Your task to perform on an android device: move an email to a new category in the gmail app Image 0: 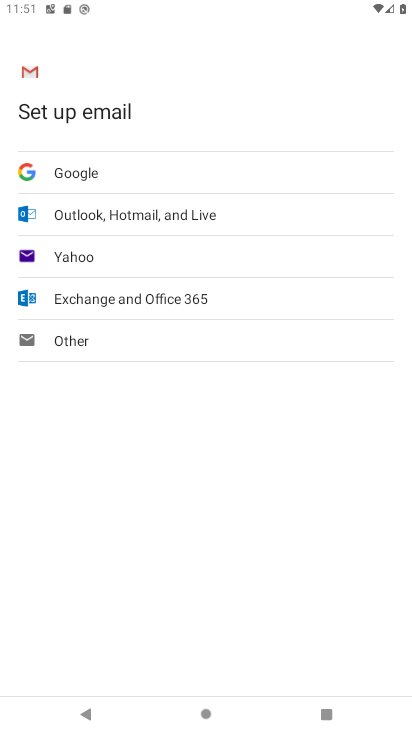
Step 0: press home button
Your task to perform on an android device: move an email to a new category in the gmail app Image 1: 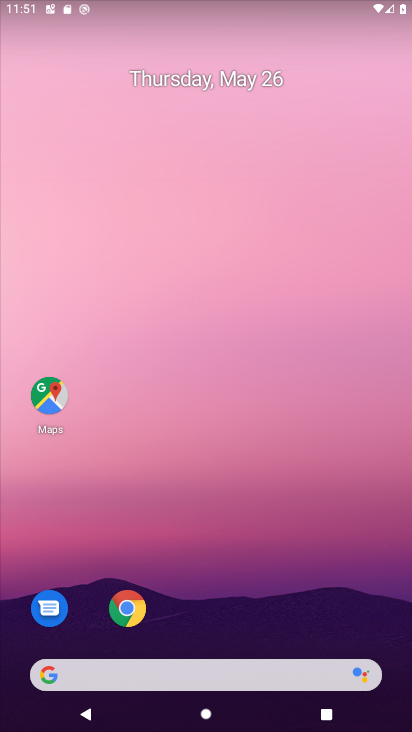
Step 1: drag from (392, 707) to (373, 147)
Your task to perform on an android device: move an email to a new category in the gmail app Image 2: 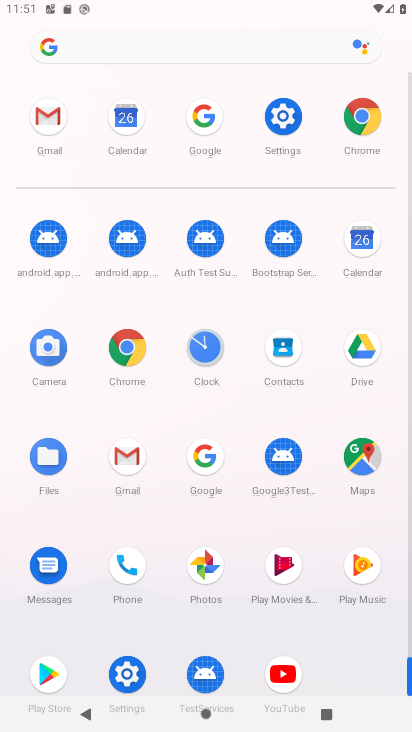
Step 2: click (132, 466)
Your task to perform on an android device: move an email to a new category in the gmail app Image 3: 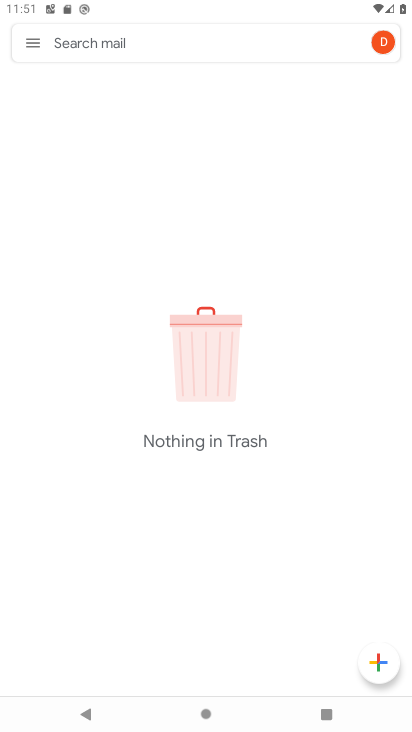
Step 3: drag from (397, 625) to (345, 319)
Your task to perform on an android device: move an email to a new category in the gmail app Image 4: 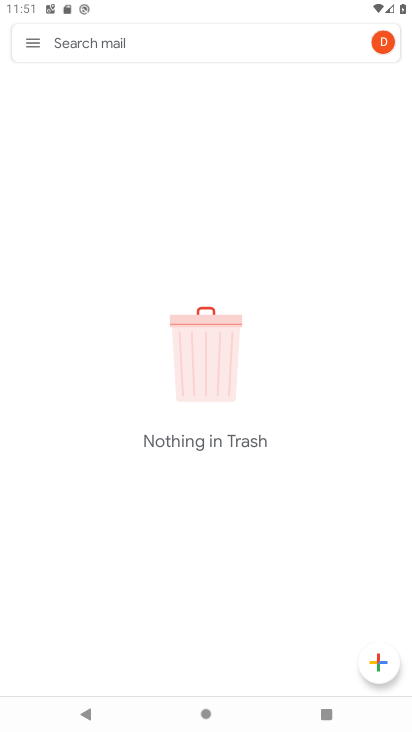
Step 4: click (24, 42)
Your task to perform on an android device: move an email to a new category in the gmail app Image 5: 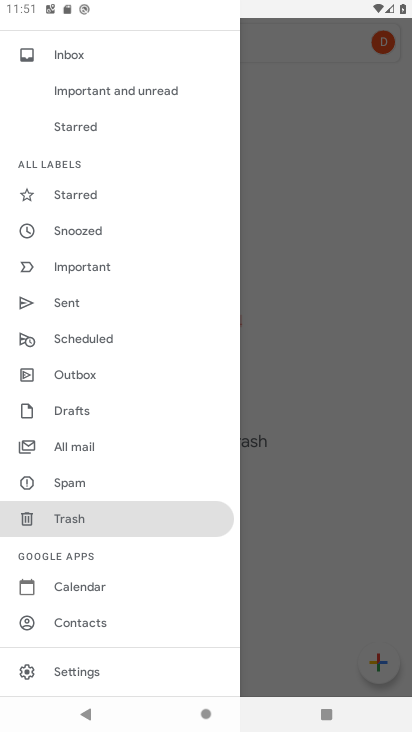
Step 5: click (67, 47)
Your task to perform on an android device: move an email to a new category in the gmail app Image 6: 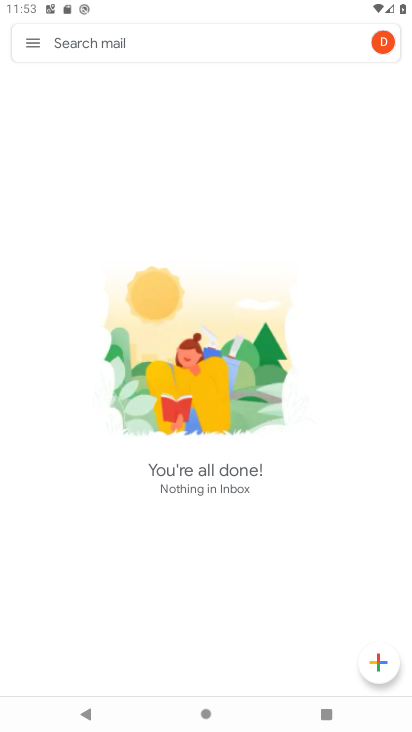
Step 6: task complete